Your task to perform on an android device: Go to Yahoo.com Image 0: 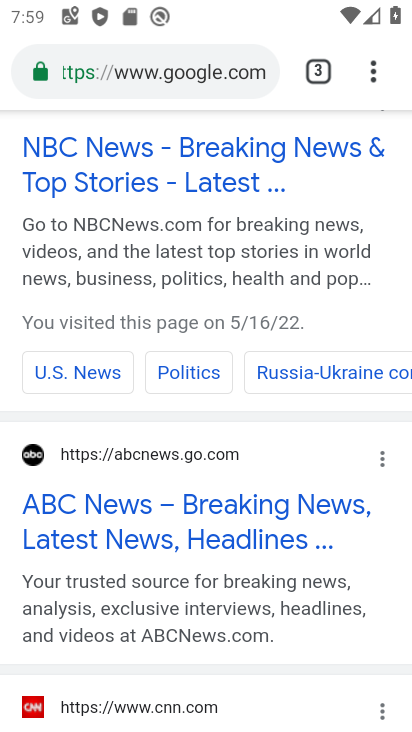
Step 0: press home button
Your task to perform on an android device: Go to Yahoo.com Image 1: 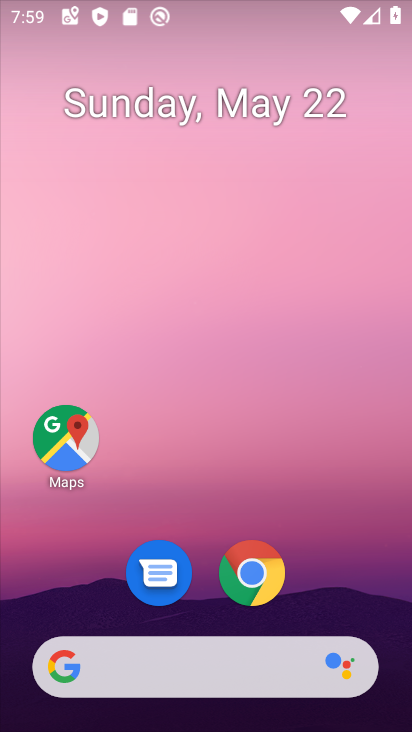
Step 1: drag from (325, 576) to (319, 215)
Your task to perform on an android device: Go to Yahoo.com Image 2: 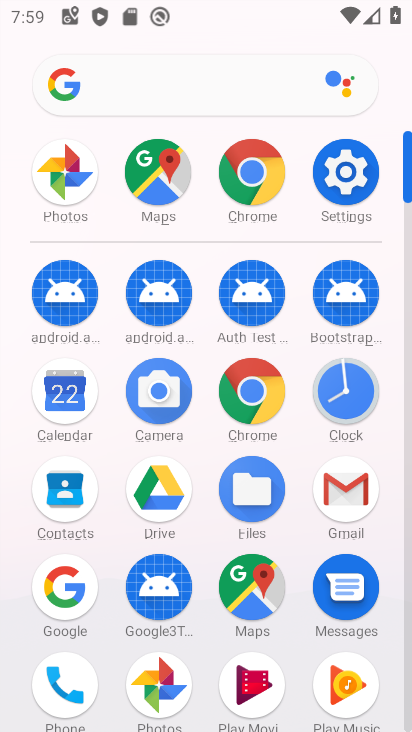
Step 2: click (281, 173)
Your task to perform on an android device: Go to Yahoo.com Image 3: 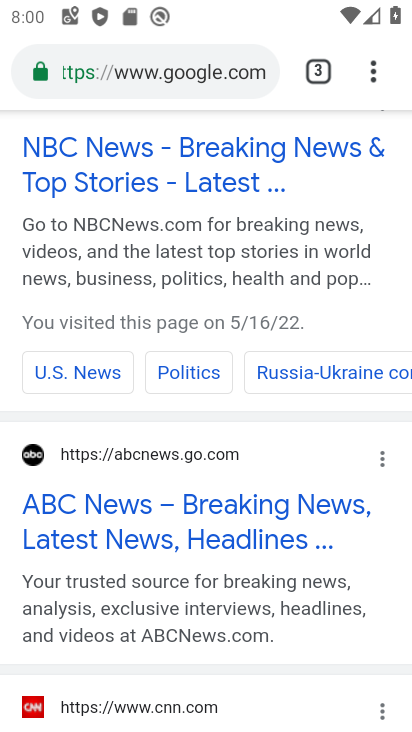
Step 3: task complete